Your task to perform on an android device: Search for Mexican restaurants on Maps Image 0: 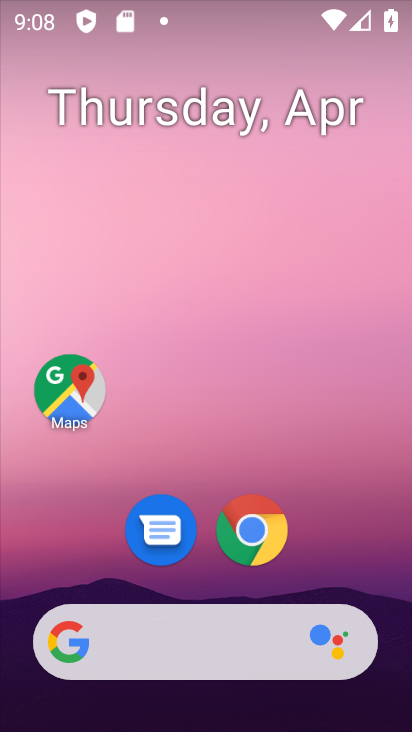
Step 0: drag from (358, 564) to (252, 11)
Your task to perform on an android device: Search for Mexican restaurants on Maps Image 1: 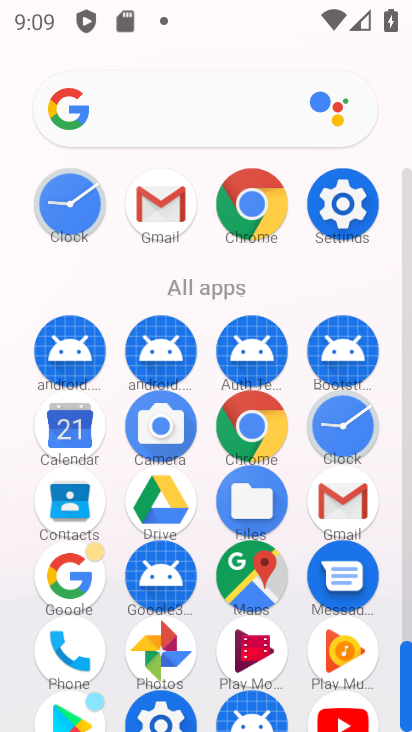
Step 1: click (261, 572)
Your task to perform on an android device: Search for Mexican restaurants on Maps Image 2: 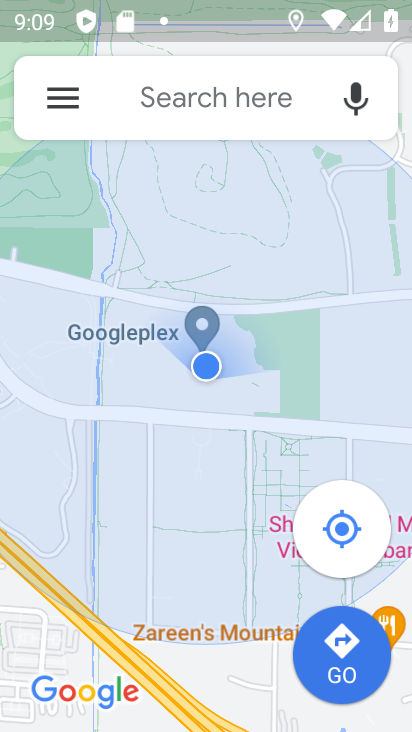
Step 2: click (180, 96)
Your task to perform on an android device: Search for Mexican restaurants on Maps Image 3: 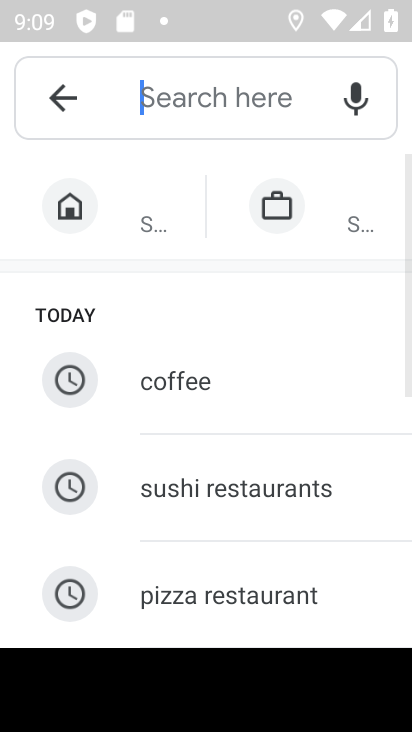
Step 3: drag from (202, 600) to (242, 287)
Your task to perform on an android device: Search for Mexican restaurants on Maps Image 4: 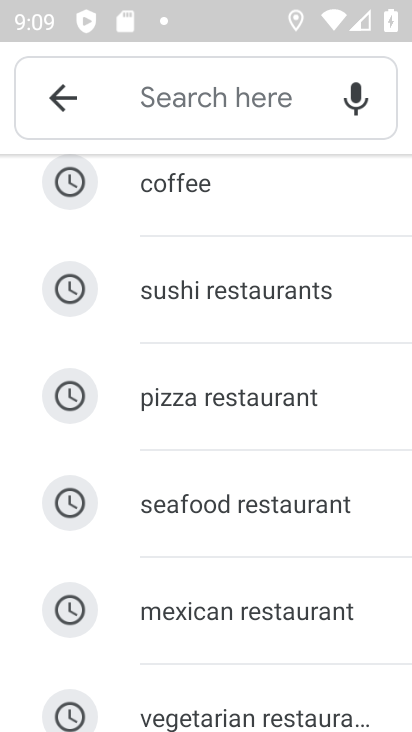
Step 4: click (246, 609)
Your task to perform on an android device: Search for Mexican restaurants on Maps Image 5: 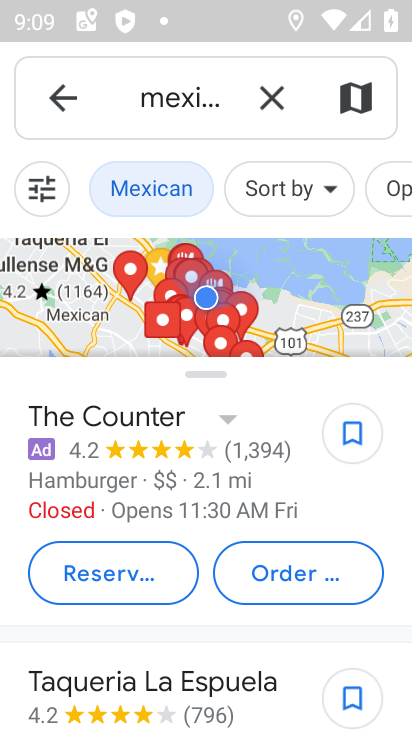
Step 5: task complete